Your task to perform on an android device: Do I have any events this weekend? Image 0: 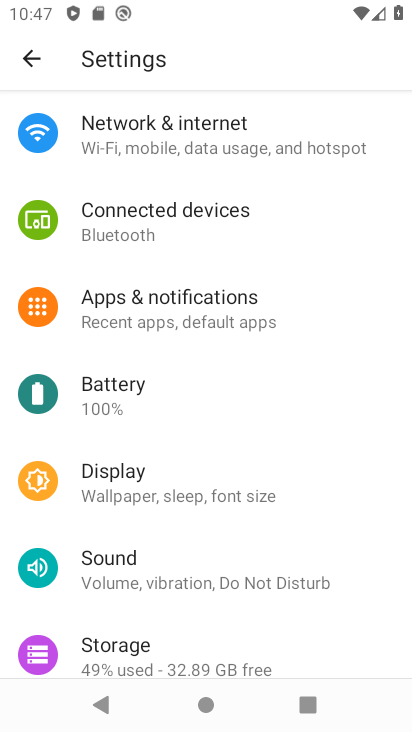
Step 0: press home button
Your task to perform on an android device: Do I have any events this weekend? Image 1: 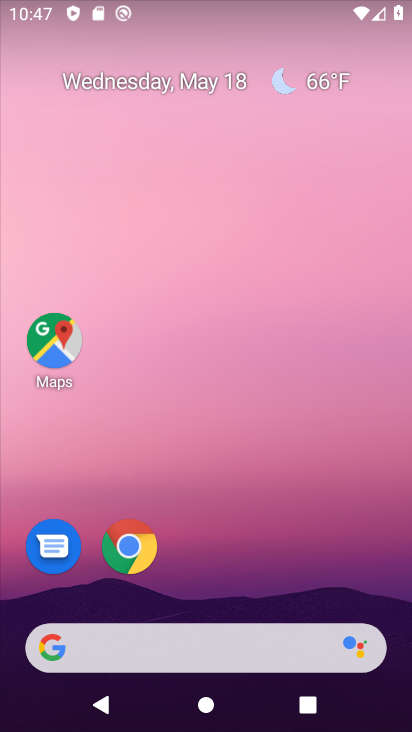
Step 1: drag from (227, 728) to (254, 104)
Your task to perform on an android device: Do I have any events this weekend? Image 2: 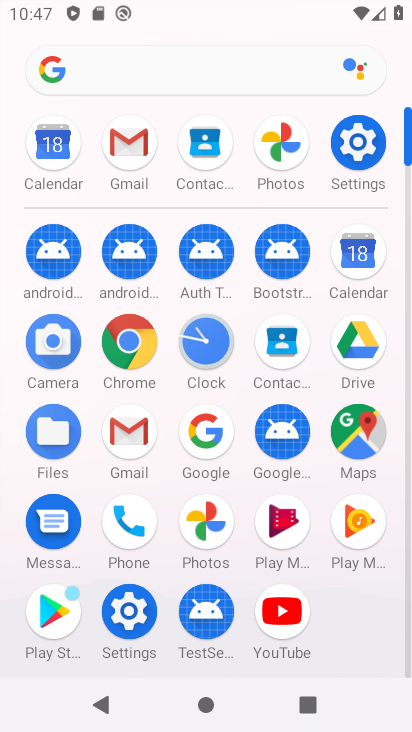
Step 2: click (363, 262)
Your task to perform on an android device: Do I have any events this weekend? Image 3: 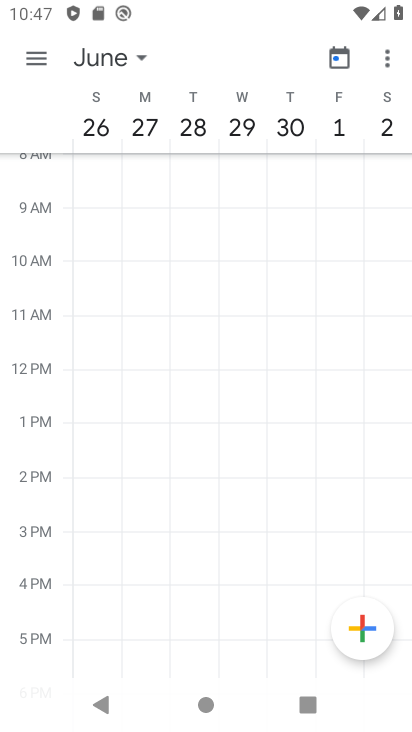
Step 3: click (122, 54)
Your task to perform on an android device: Do I have any events this weekend? Image 4: 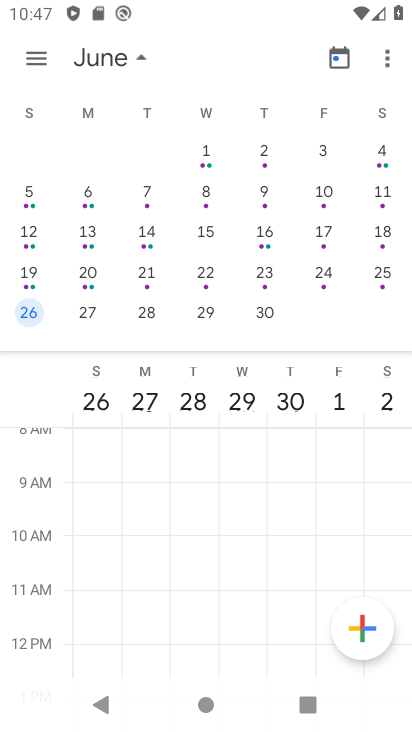
Step 4: drag from (77, 259) to (361, 268)
Your task to perform on an android device: Do I have any events this weekend? Image 5: 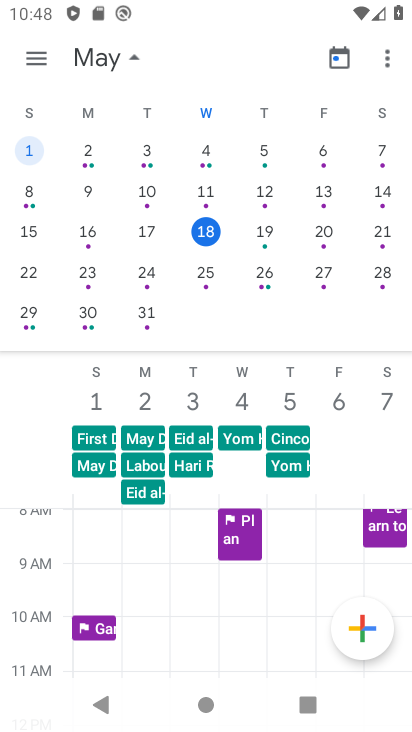
Step 5: click (383, 225)
Your task to perform on an android device: Do I have any events this weekend? Image 6: 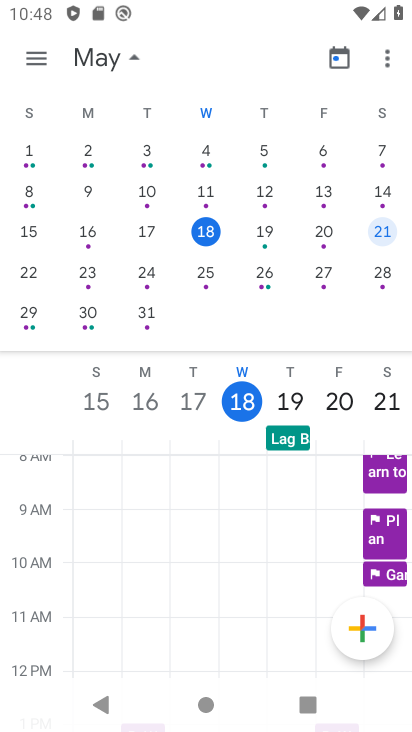
Step 6: click (132, 49)
Your task to perform on an android device: Do I have any events this weekend? Image 7: 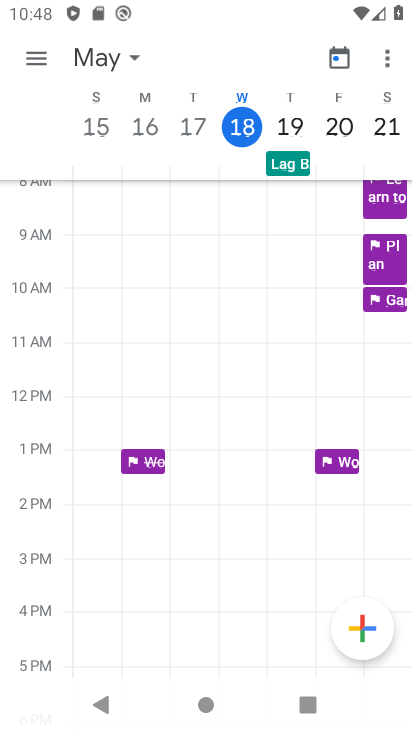
Step 7: task complete